Your task to perform on an android device: all mails in gmail Image 0: 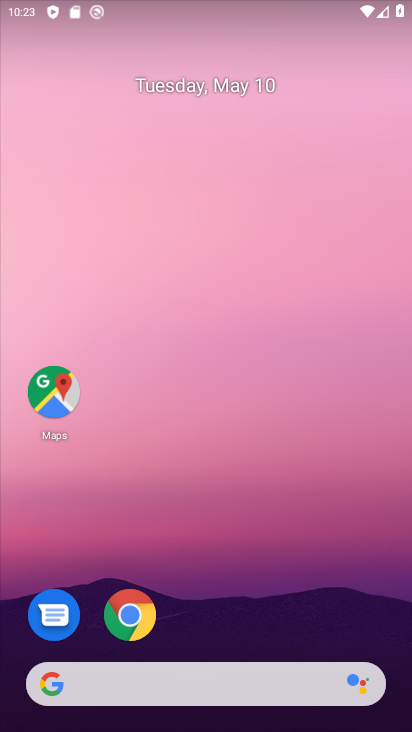
Step 0: drag from (279, 574) to (250, 126)
Your task to perform on an android device: all mails in gmail Image 1: 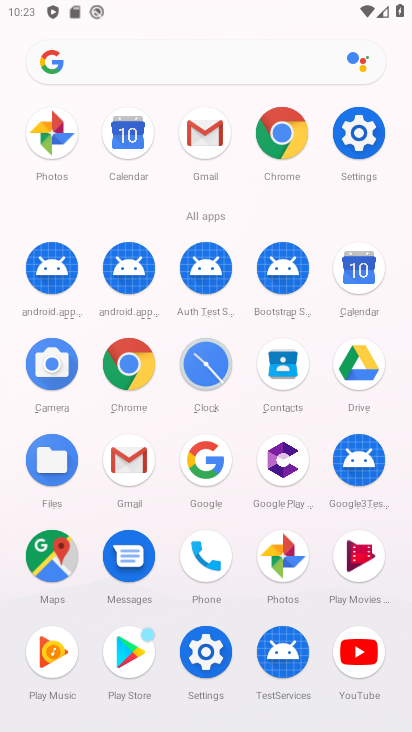
Step 1: click (208, 134)
Your task to perform on an android device: all mails in gmail Image 2: 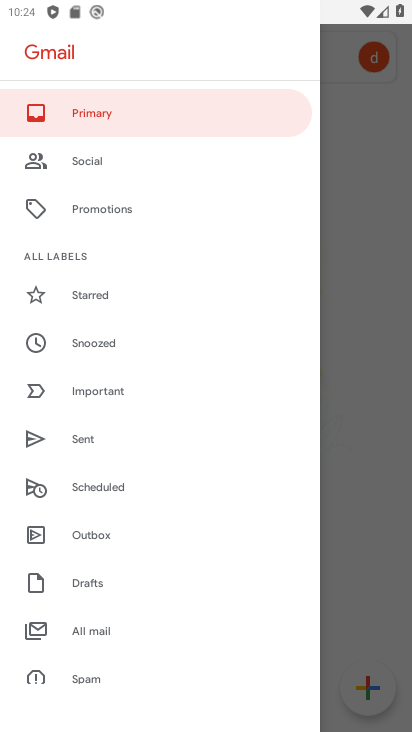
Step 2: click (103, 632)
Your task to perform on an android device: all mails in gmail Image 3: 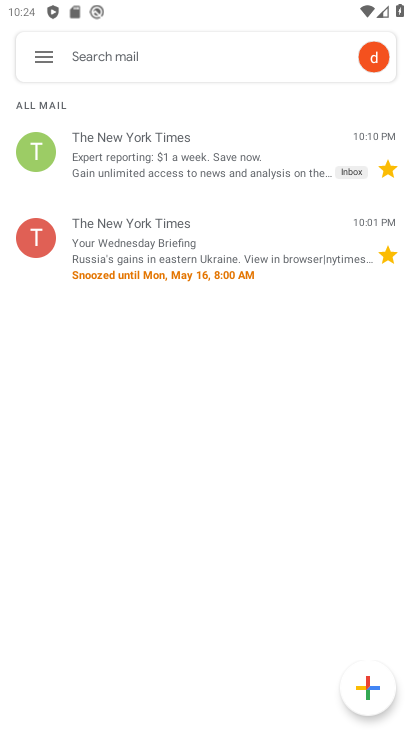
Step 3: task complete